Your task to perform on an android device: See recent photos Image 0: 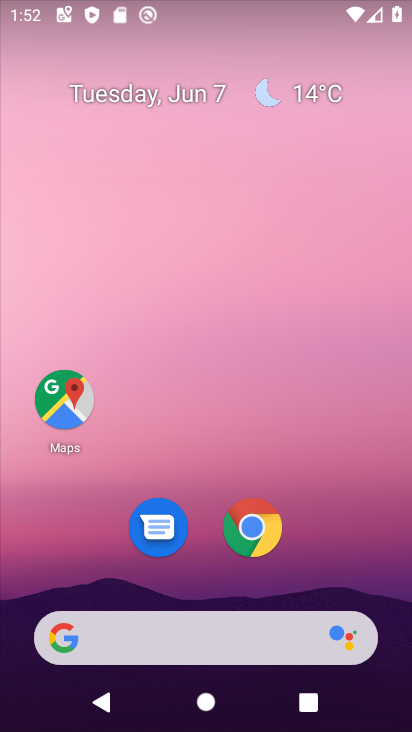
Step 0: drag from (360, 585) to (265, 206)
Your task to perform on an android device: See recent photos Image 1: 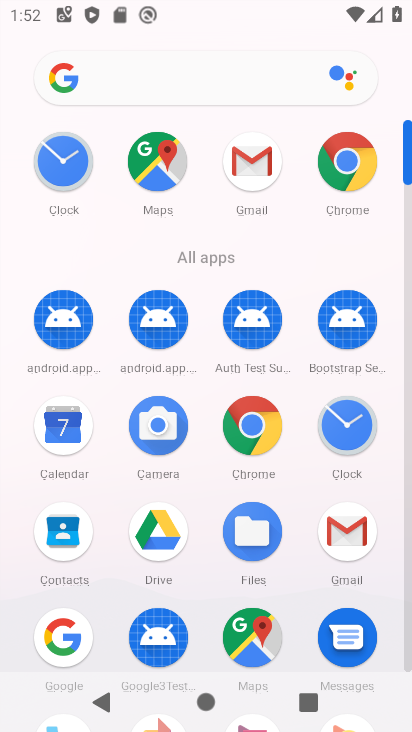
Step 1: click (409, 664)
Your task to perform on an android device: See recent photos Image 2: 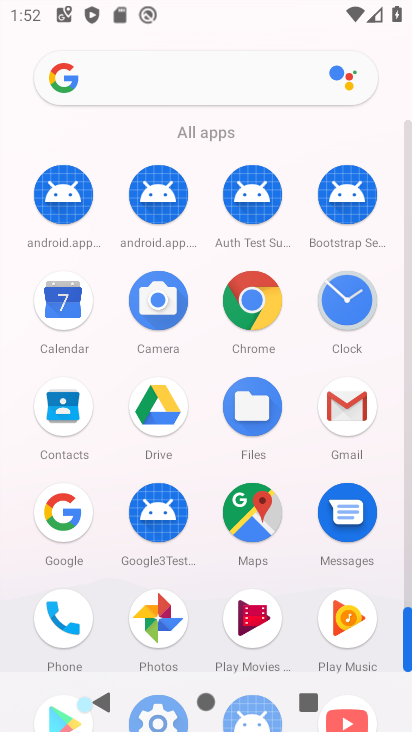
Step 2: click (161, 621)
Your task to perform on an android device: See recent photos Image 3: 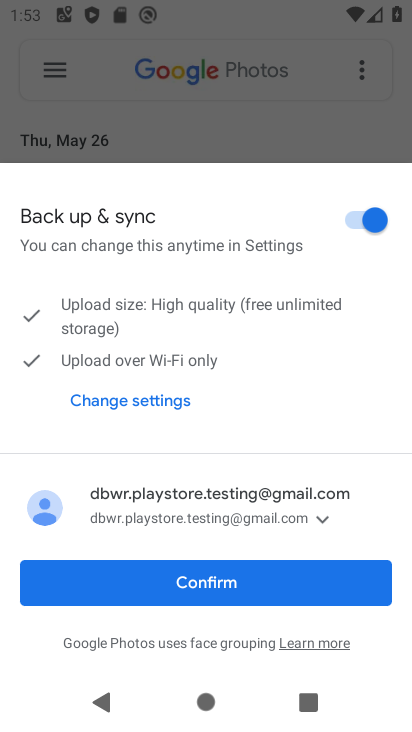
Step 3: click (213, 594)
Your task to perform on an android device: See recent photos Image 4: 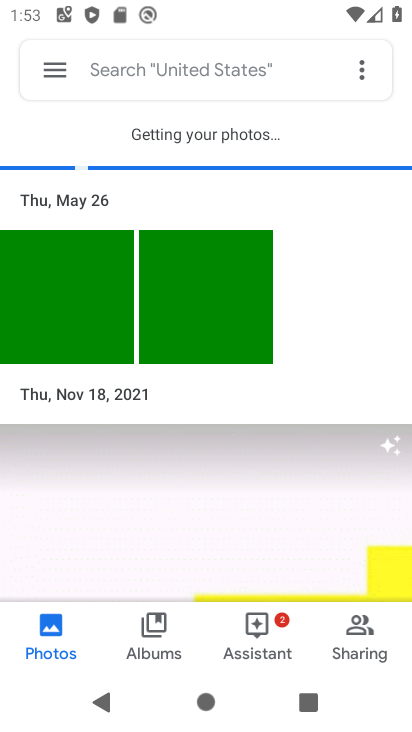
Step 4: task complete